Your task to perform on an android device: Go to Google Image 0: 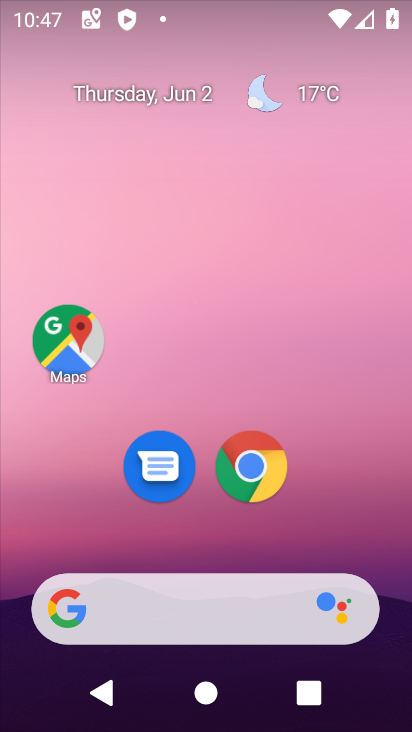
Step 0: drag from (229, 694) to (206, 269)
Your task to perform on an android device: Go to Google Image 1: 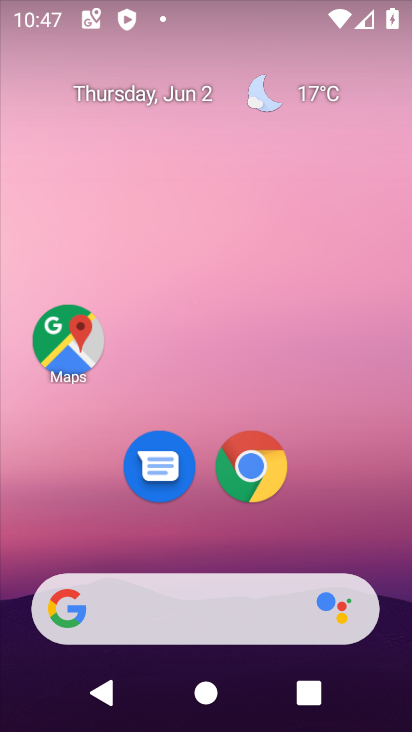
Step 1: drag from (147, 585) to (201, 238)
Your task to perform on an android device: Go to Google Image 2: 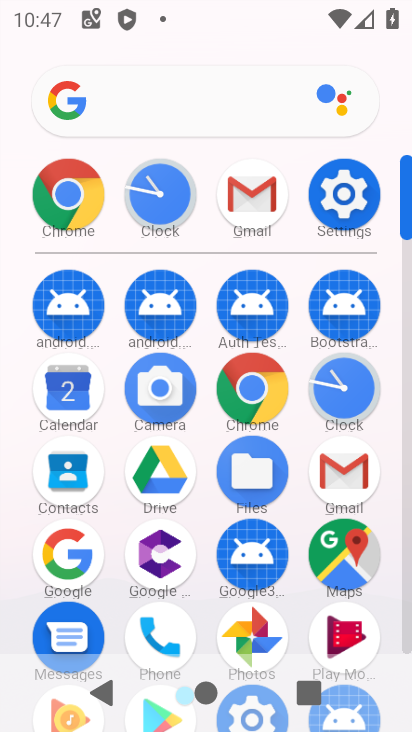
Step 2: click (74, 548)
Your task to perform on an android device: Go to Google Image 3: 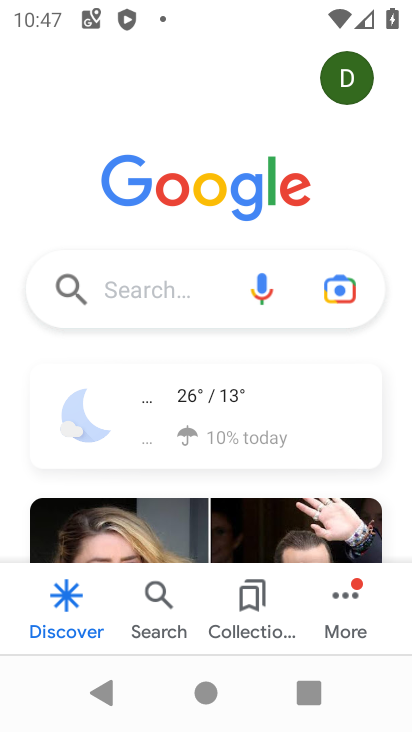
Step 3: task complete